Your task to perform on an android device: star an email in the gmail app Image 0: 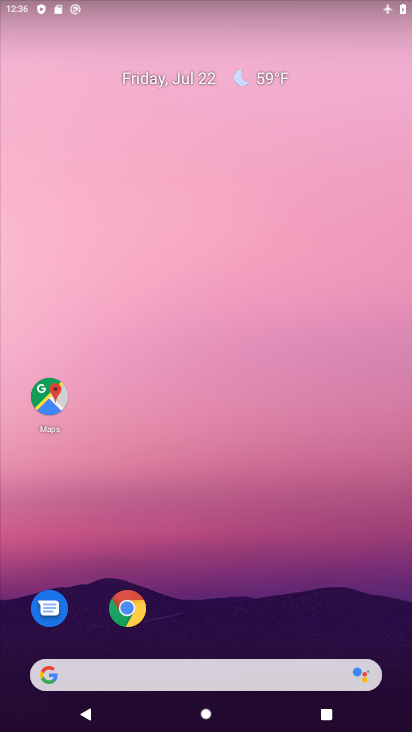
Step 0: drag from (196, 612) to (169, 105)
Your task to perform on an android device: star an email in the gmail app Image 1: 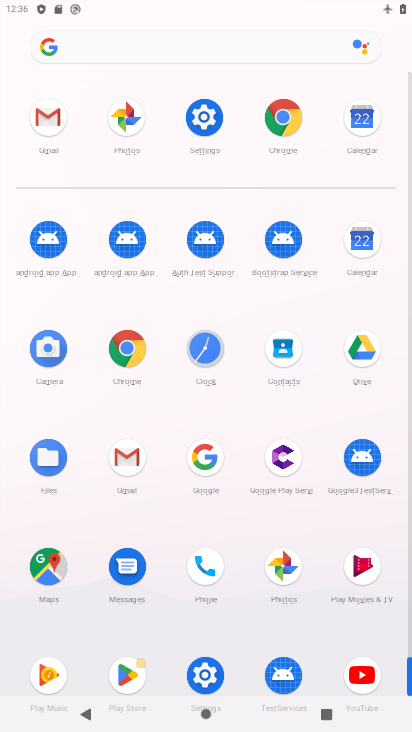
Step 1: click (138, 461)
Your task to perform on an android device: star an email in the gmail app Image 2: 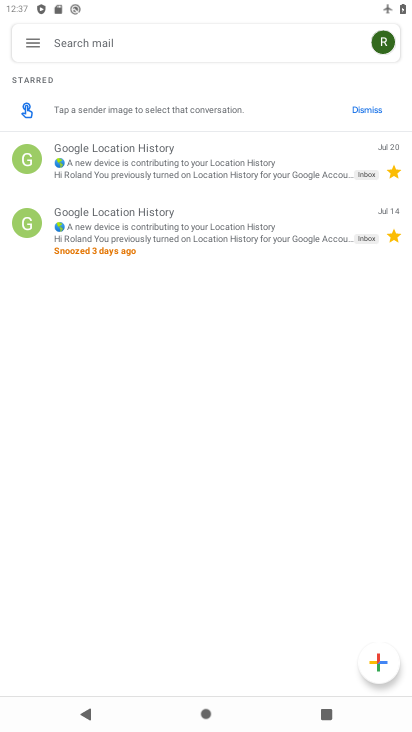
Step 2: click (29, 42)
Your task to perform on an android device: star an email in the gmail app Image 3: 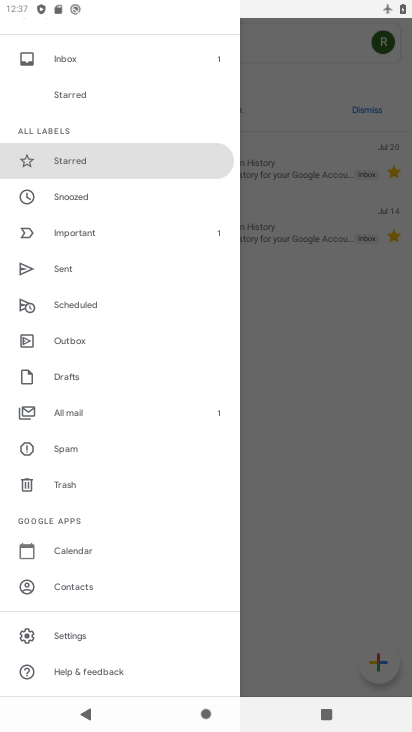
Step 3: click (93, 419)
Your task to perform on an android device: star an email in the gmail app Image 4: 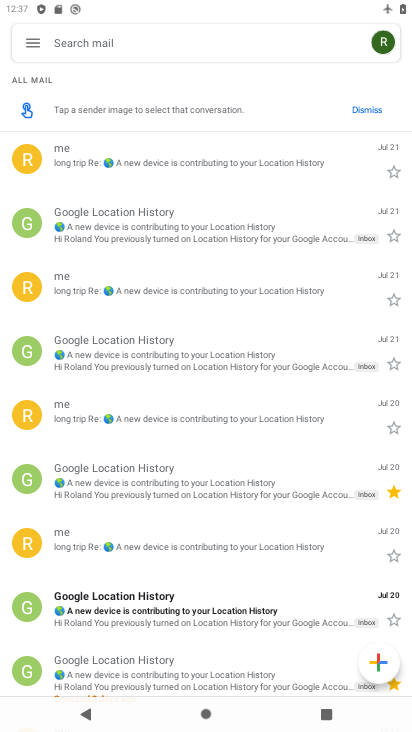
Step 4: click (389, 163)
Your task to perform on an android device: star an email in the gmail app Image 5: 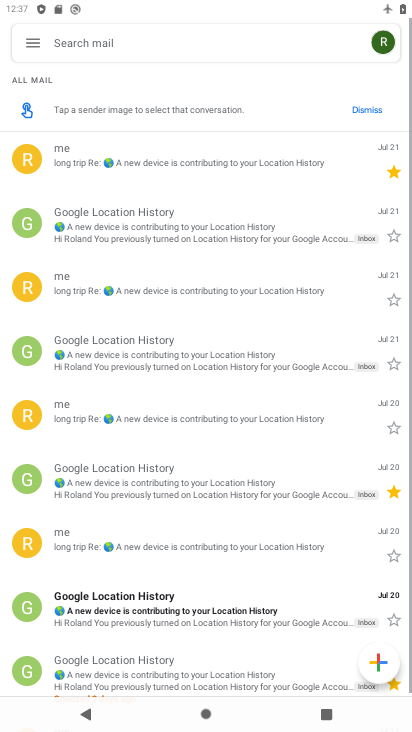
Step 5: task complete